Your task to perform on an android device: turn on priority inbox in the gmail app Image 0: 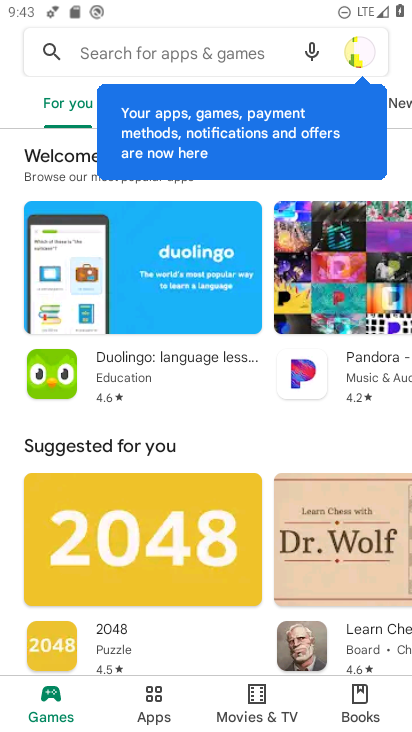
Step 0: press home button
Your task to perform on an android device: turn on priority inbox in the gmail app Image 1: 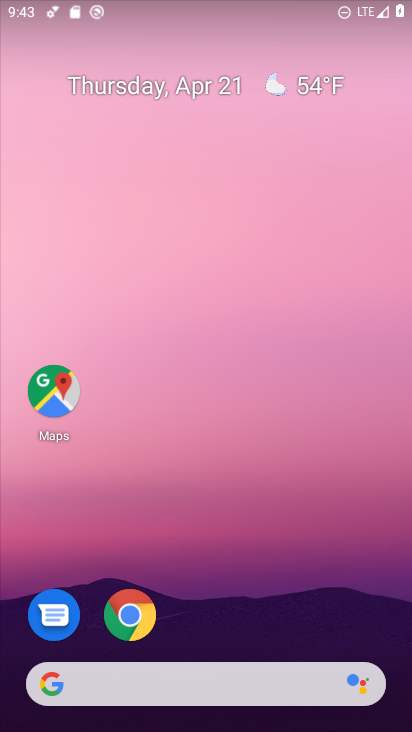
Step 1: drag from (324, 628) to (245, 90)
Your task to perform on an android device: turn on priority inbox in the gmail app Image 2: 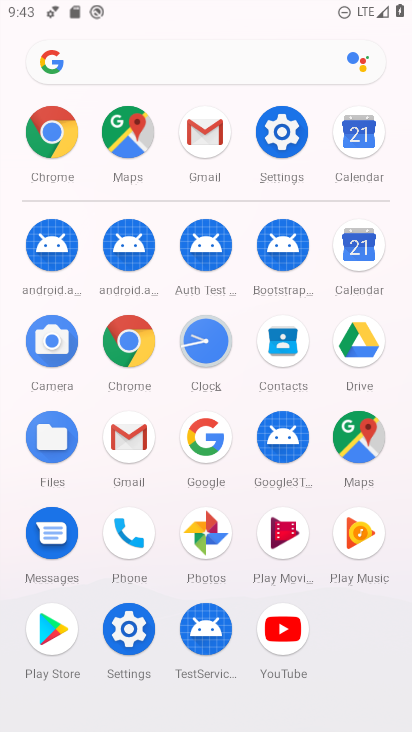
Step 2: click (209, 136)
Your task to perform on an android device: turn on priority inbox in the gmail app Image 3: 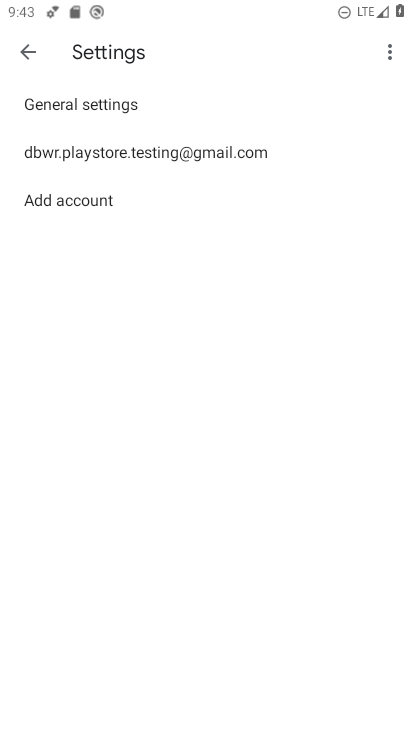
Step 3: click (89, 149)
Your task to perform on an android device: turn on priority inbox in the gmail app Image 4: 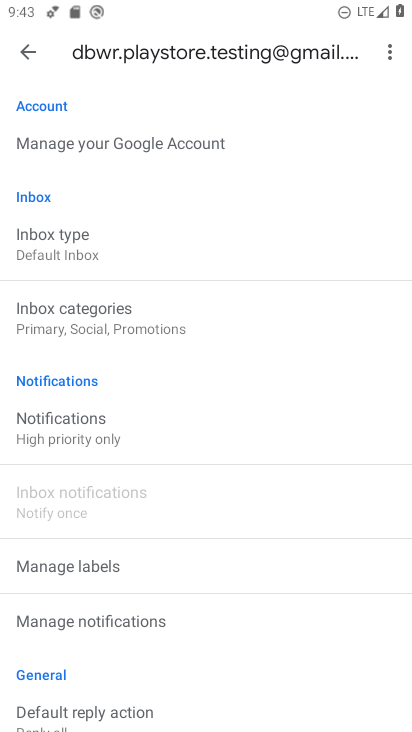
Step 4: click (60, 236)
Your task to perform on an android device: turn on priority inbox in the gmail app Image 5: 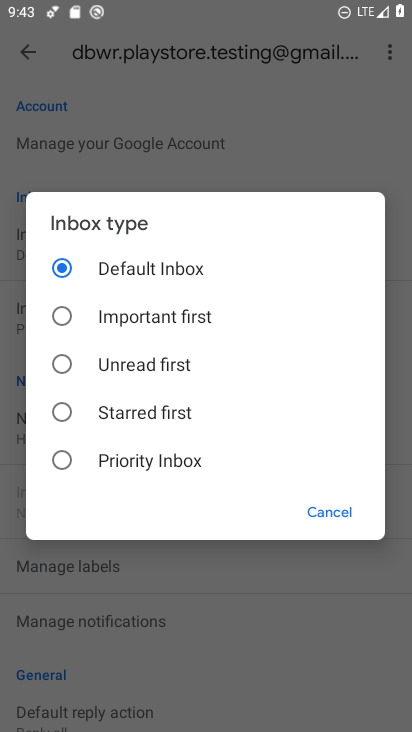
Step 5: click (87, 458)
Your task to perform on an android device: turn on priority inbox in the gmail app Image 6: 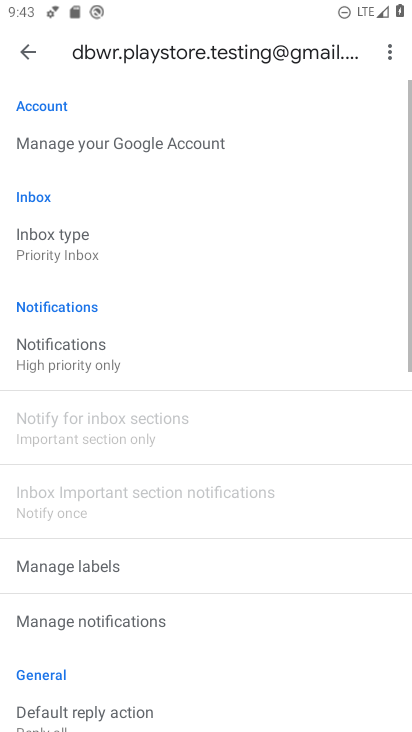
Step 6: task complete